Your task to perform on an android device: toggle notification dots Image 0: 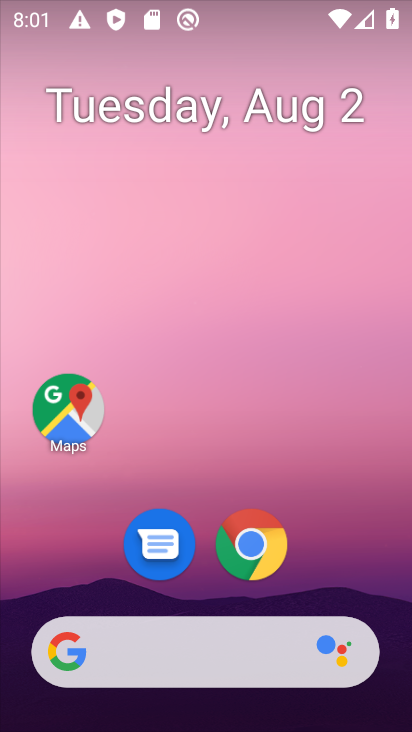
Step 0: drag from (122, 582) to (48, 348)
Your task to perform on an android device: toggle notification dots Image 1: 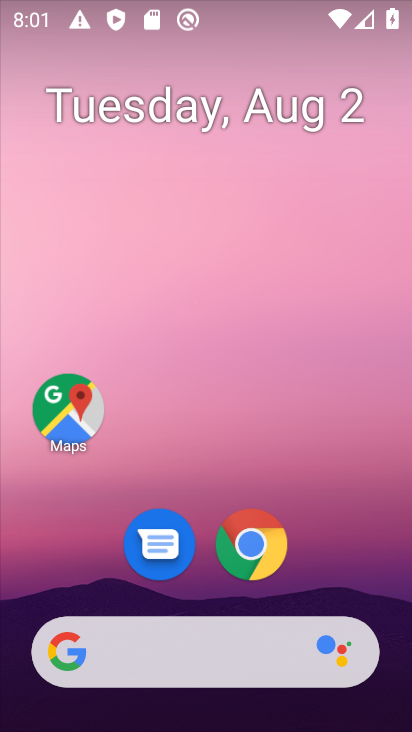
Step 1: drag from (217, 615) to (157, 173)
Your task to perform on an android device: toggle notification dots Image 2: 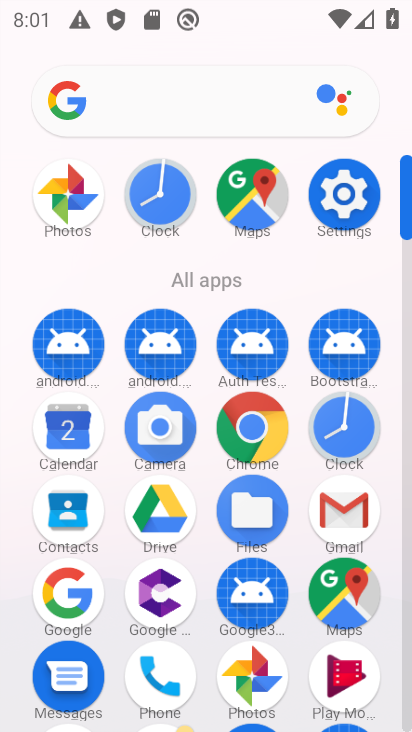
Step 2: click (318, 186)
Your task to perform on an android device: toggle notification dots Image 3: 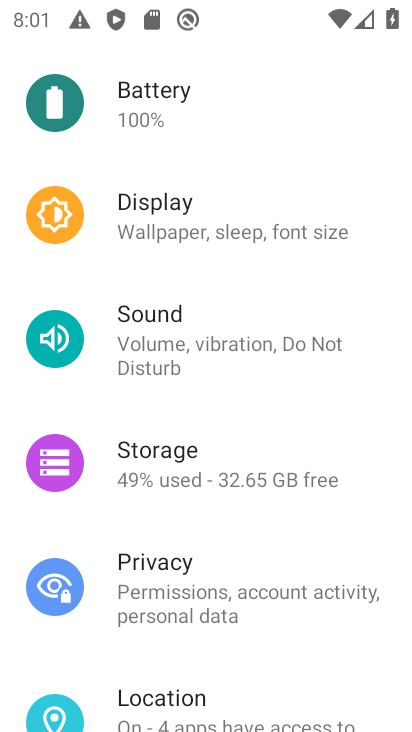
Step 3: drag from (175, 157) to (231, 504)
Your task to perform on an android device: toggle notification dots Image 4: 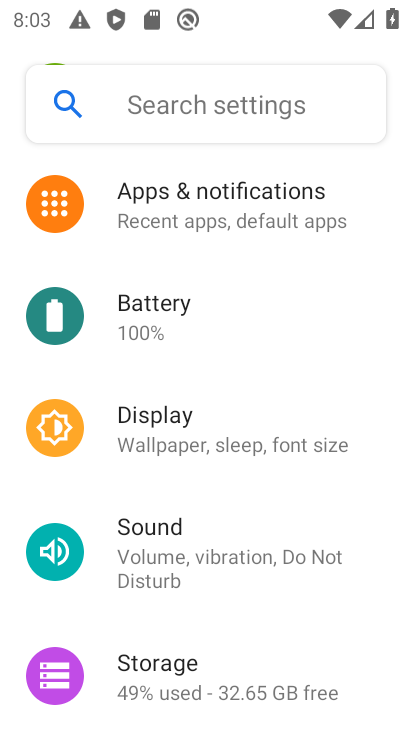
Step 4: click (248, 195)
Your task to perform on an android device: toggle notification dots Image 5: 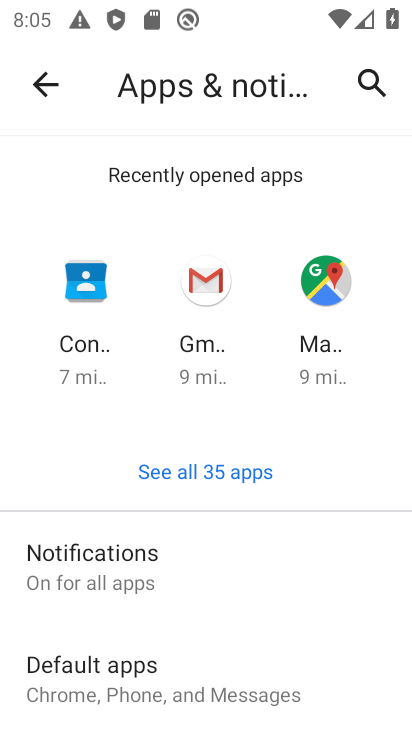
Step 5: drag from (160, 693) to (99, 343)
Your task to perform on an android device: toggle notification dots Image 6: 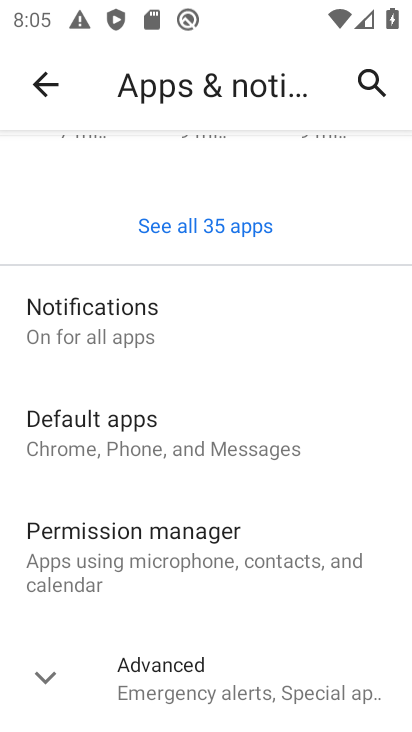
Step 6: click (88, 325)
Your task to perform on an android device: toggle notification dots Image 7: 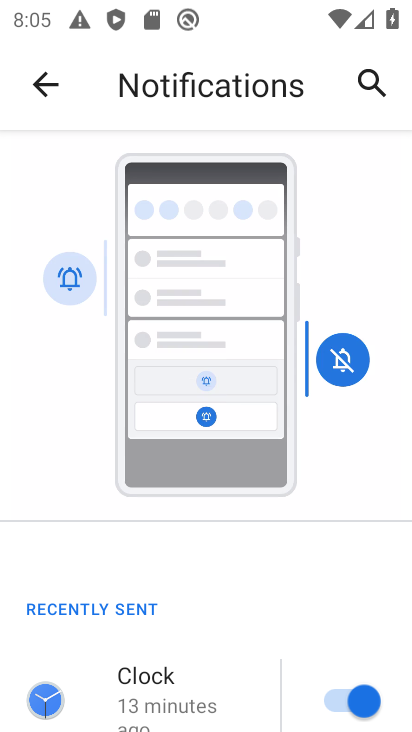
Step 7: drag from (145, 661) to (84, 333)
Your task to perform on an android device: toggle notification dots Image 8: 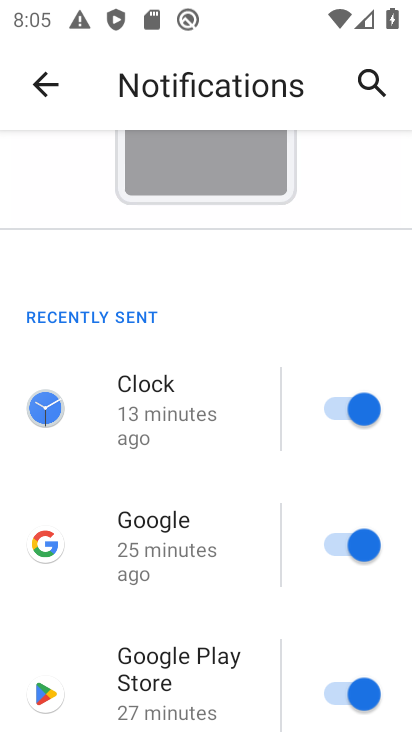
Step 8: drag from (204, 681) to (147, 282)
Your task to perform on an android device: toggle notification dots Image 9: 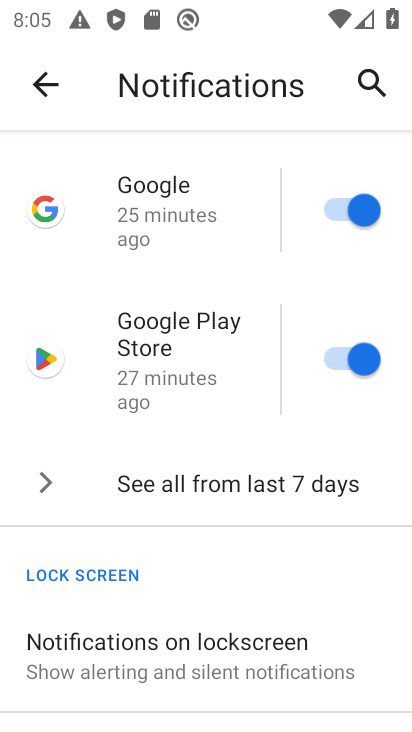
Step 9: drag from (156, 684) to (53, 334)
Your task to perform on an android device: toggle notification dots Image 10: 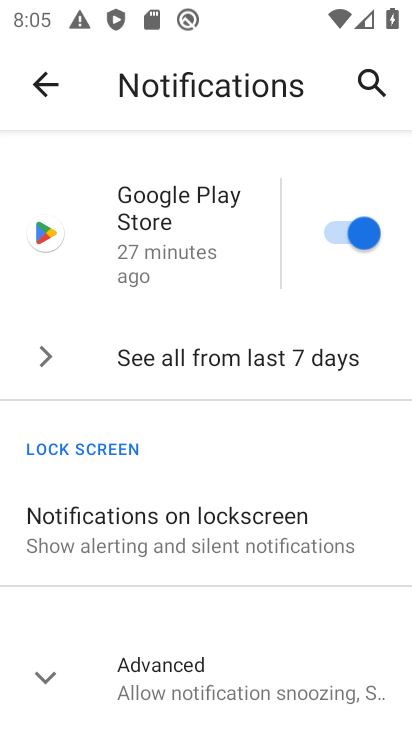
Step 10: click (201, 685)
Your task to perform on an android device: toggle notification dots Image 11: 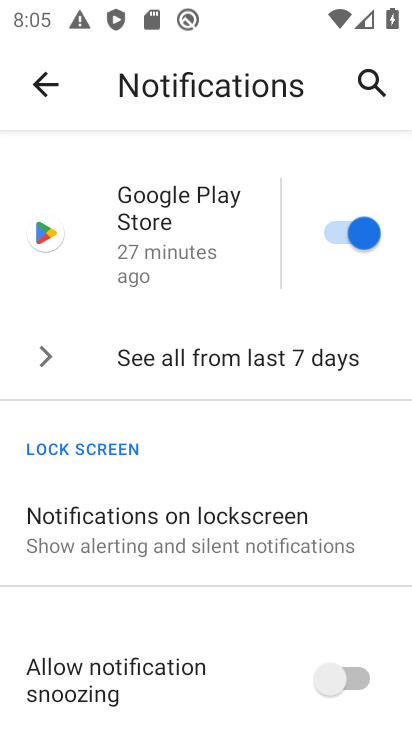
Step 11: drag from (191, 664) to (113, 363)
Your task to perform on an android device: toggle notification dots Image 12: 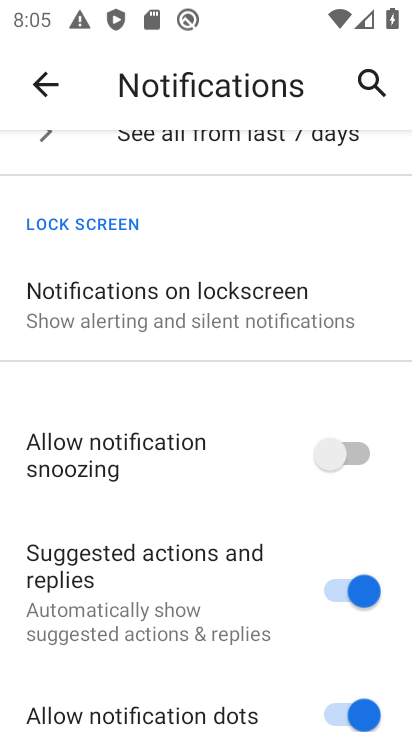
Step 12: drag from (211, 706) to (131, 440)
Your task to perform on an android device: toggle notification dots Image 13: 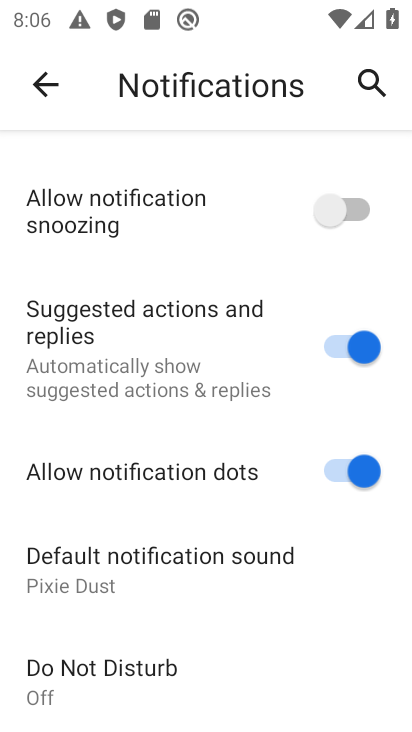
Step 13: click (131, 473)
Your task to perform on an android device: toggle notification dots Image 14: 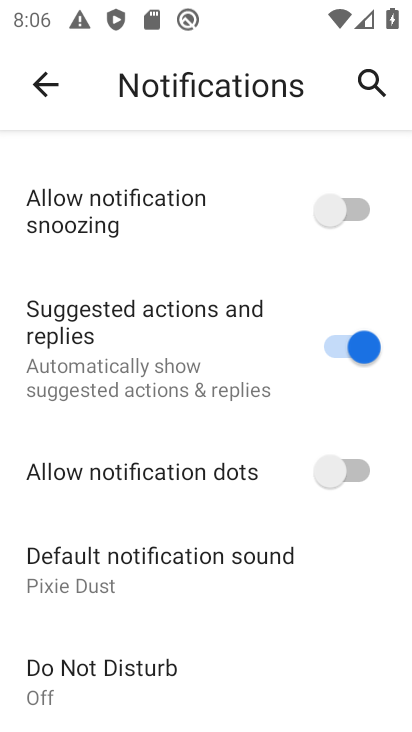
Step 14: task complete